Your task to perform on an android device: Open Google Chrome and click the shortcut for Amazon.com Image 0: 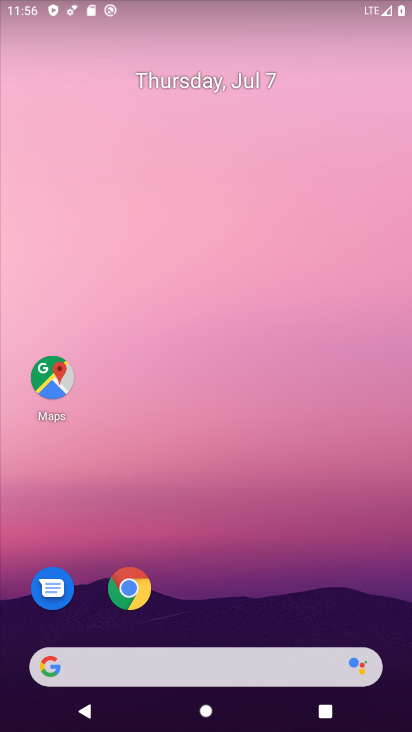
Step 0: click (128, 583)
Your task to perform on an android device: Open Google Chrome and click the shortcut for Amazon.com Image 1: 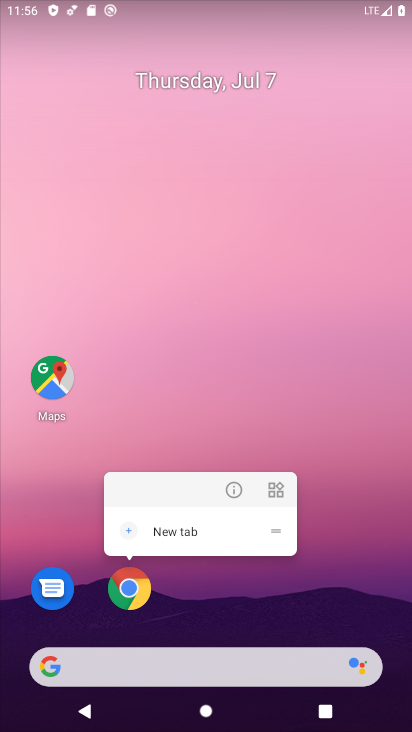
Step 1: click (128, 583)
Your task to perform on an android device: Open Google Chrome and click the shortcut for Amazon.com Image 2: 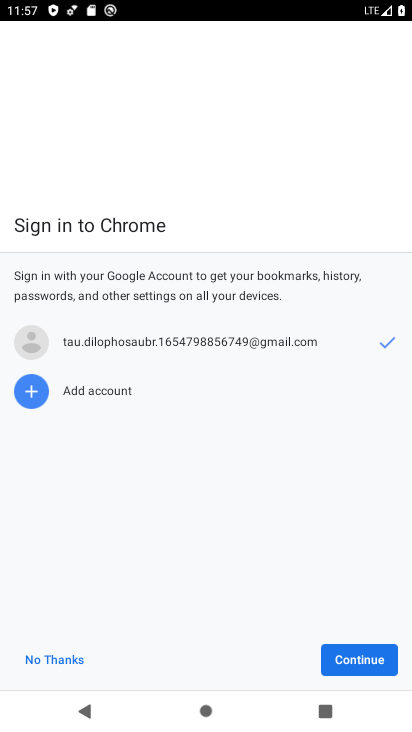
Step 2: click (359, 657)
Your task to perform on an android device: Open Google Chrome and click the shortcut for Amazon.com Image 3: 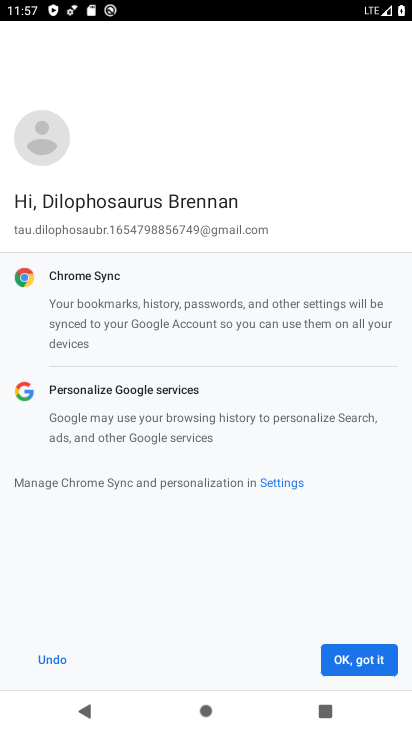
Step 3: click (359, 657)
Your task to perform on an android device: Open Google Chrome and click the shortcut for Amazon.com Image 4: 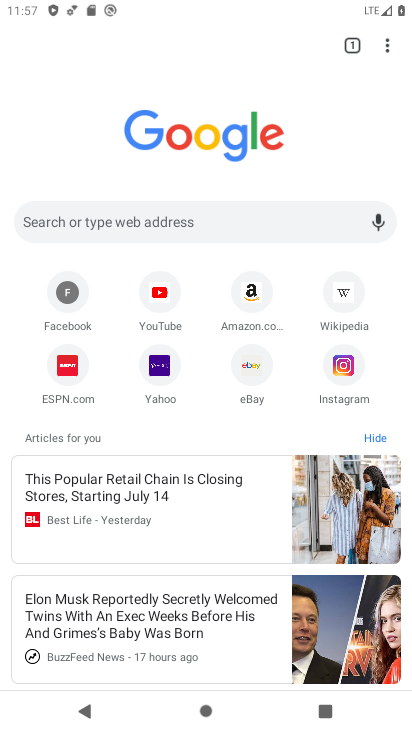
Step 4: click (249, 290)
Your task to perform on an android device: Open Google Chrome and click the shortcut for Amazon.com Image 5: 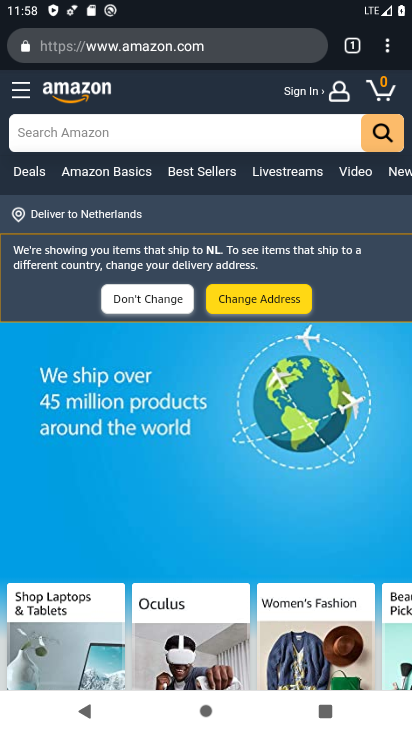
Step 5: task complete